Your task to perform on an android device: Open calendar and show me the third week of next month Image 0: 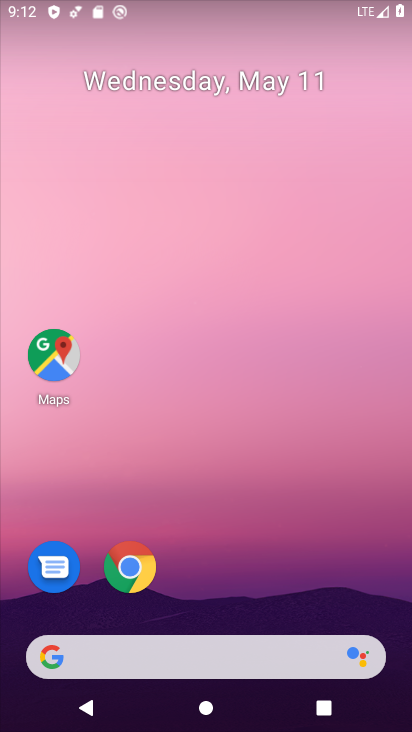
Step 0: click (200, 1)
Your task to perform on an android device: Open calendar and show me the third week of next month Image 1: 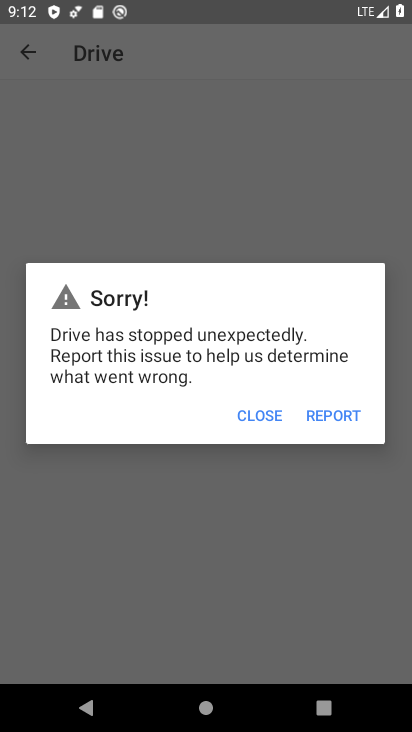
Step 1: press home button
Your task to perform on an android device: Open calendar and show me the third week of next month Image 2: 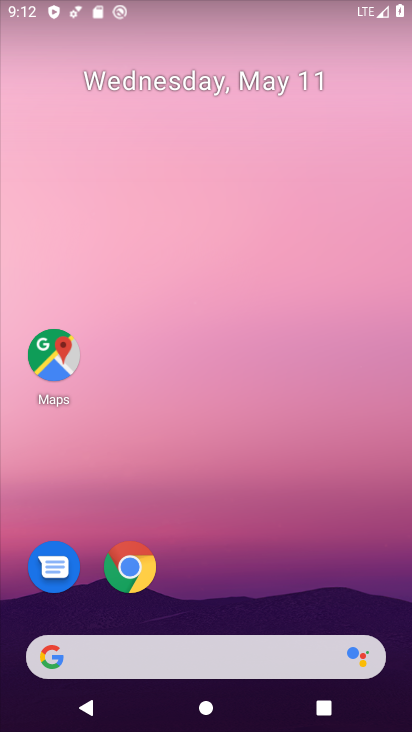
Step 2: drag from (277, 678) to (284, 59)
Your task to perform on an android device: Open calendar and show me the third week of next month Image 3: 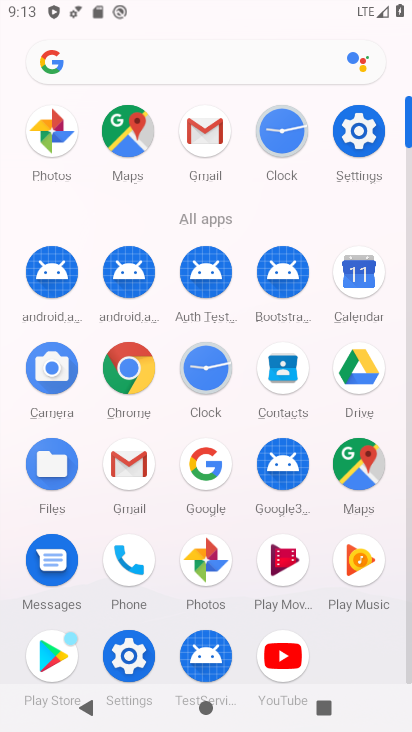
Step 3: click (364, 278)
Your task to perform on an android device: Open calendar and show me the third week of next month Image 4: 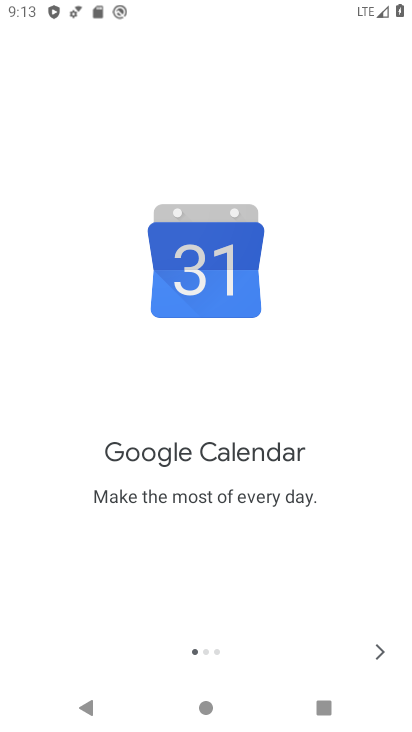
Step 4: click (380, 636)
Your task to perform on an android device: Open calendar and show me the third week of next month Image 5: 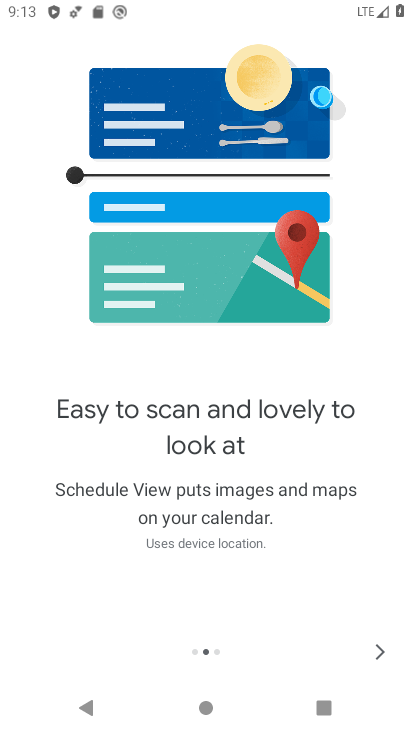
Step 5: click (381, 645)
Your task to perform on an android device: Open calendar and show me the third week of next month Image 6: 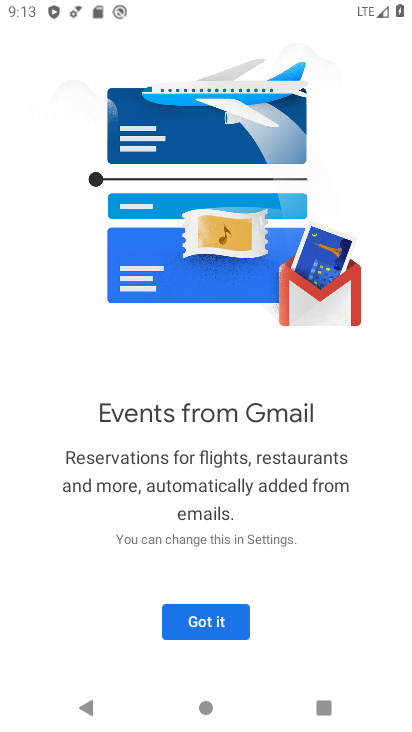
Step 6: click (219, 632)
Your task to perform on an android device: Open calendar and show me the third week of next month Image 7: 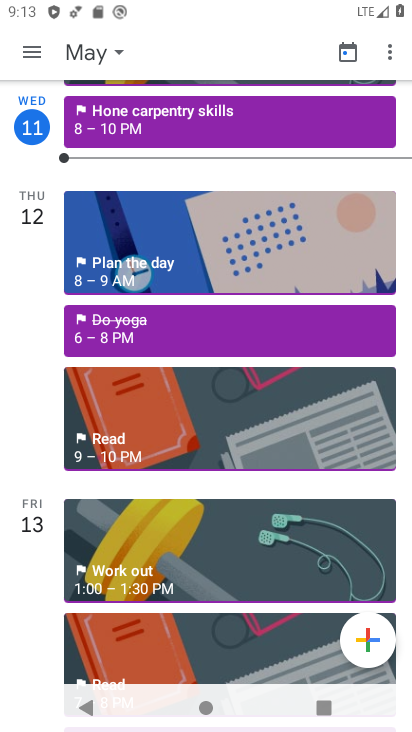
Step 7: click (82, 54)
Your task to perform on an android device: Open calendar and show me the third week of next month Image 8: 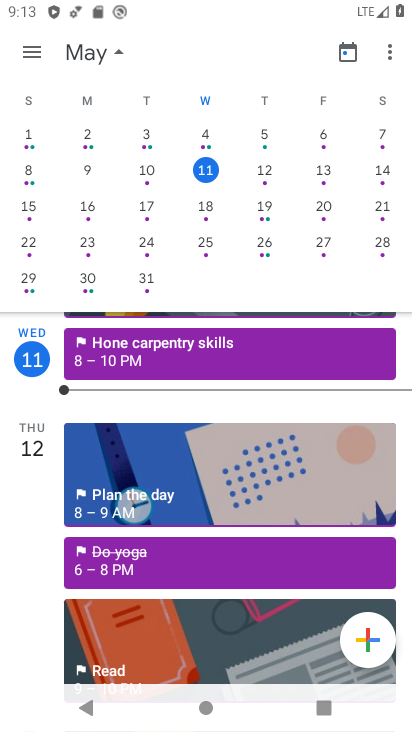
Step 8: drag from (352, 177) to (66, 286)
Your task to perform on an android device: Open calendar and show me the third week of next month Image 9: 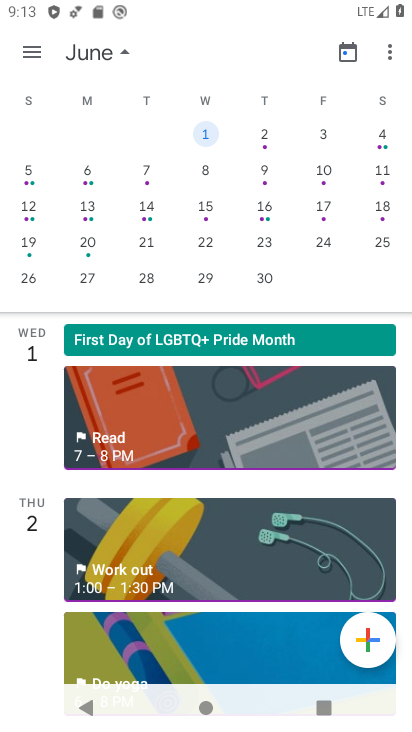
Step 9: click (34, 210)
Your task to perform on an android device: Open calendar and show me the third week of next month Image 10: 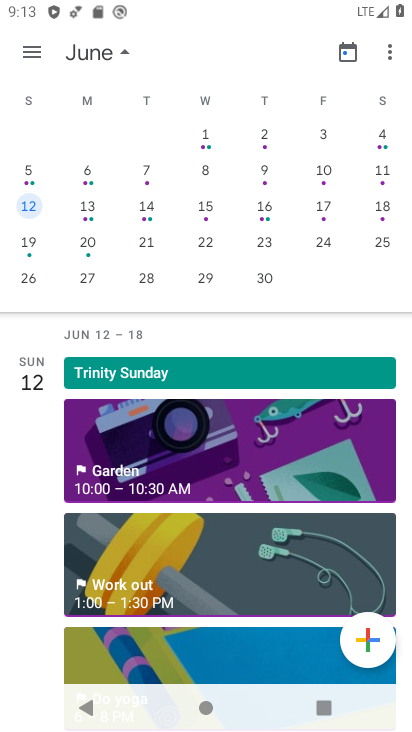
Step 10: task complete